Your task to perform on an android device: turn on bluetooth scan Image 0: 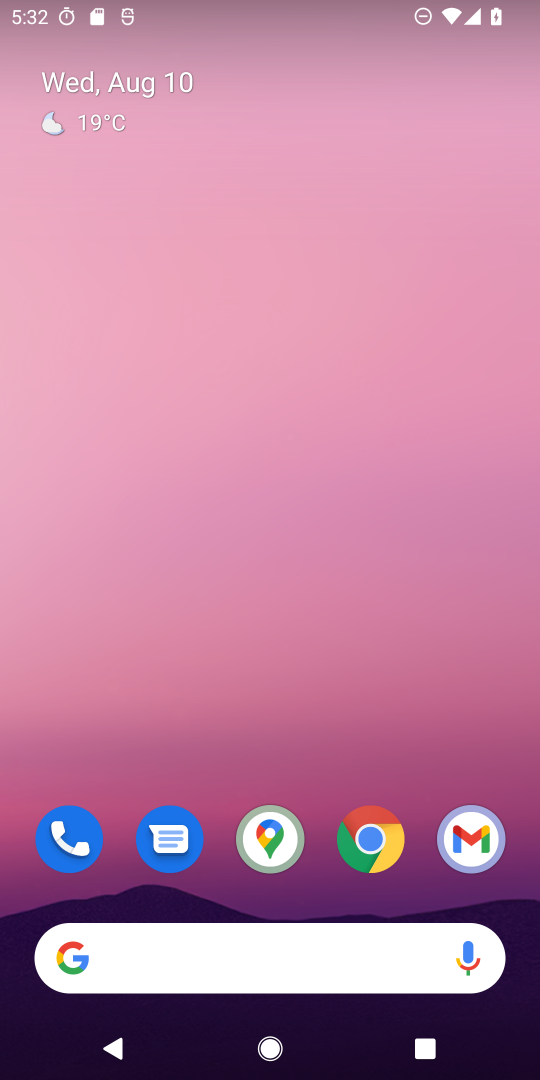
Step 0: drag from (57, 994) to (355, 292)
Your task to perform on an android device: turn on bluetooth scan Image 1: 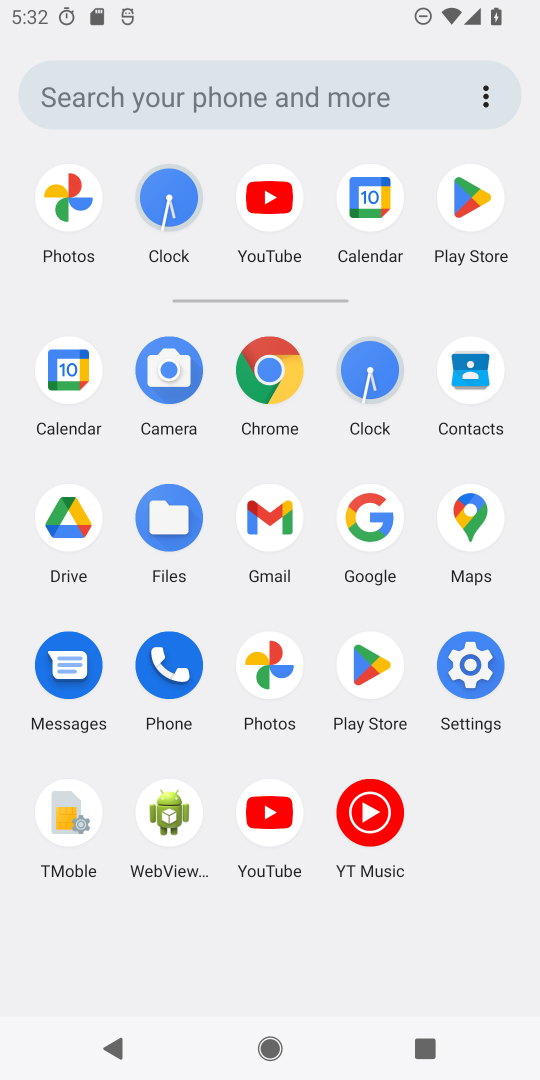
Step 1: click (463, 681)
Your task to perform on an android device: turn on bluetooth scan Image 2: 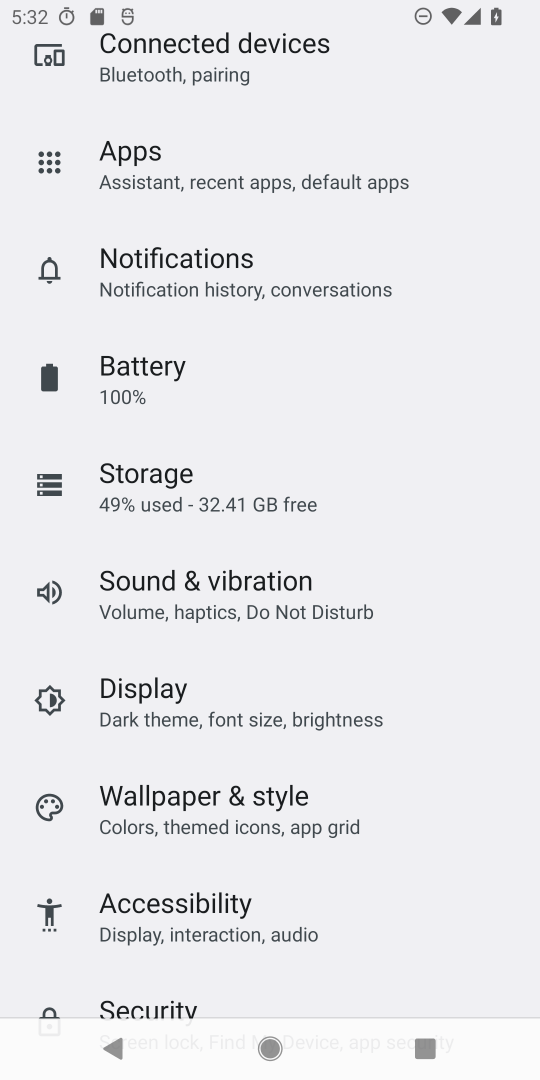
Step 2: drag from (469, 90) to (508, 843)
Your task to perform on an android device: turn on bluetooth scan Image 3: 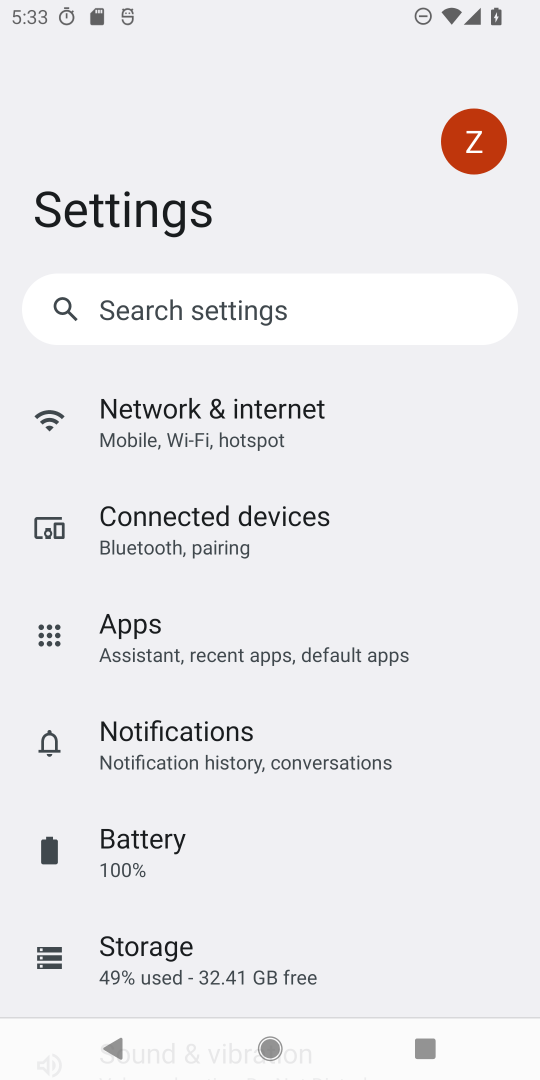
Step 3: click (160, 526)
Your task to perform on an android device: turn on bluetooth scan Image 4: 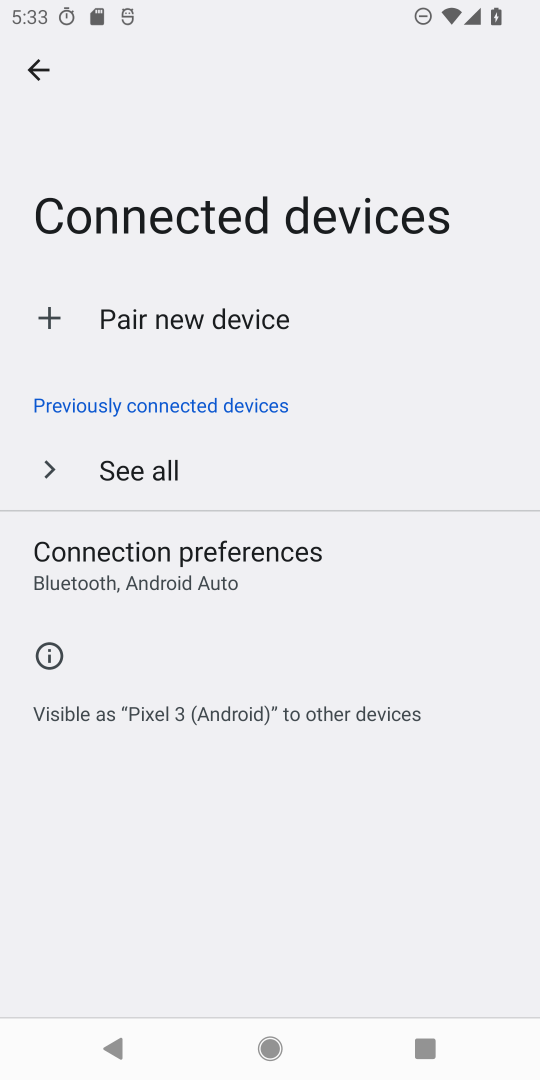
Step 4: click (152, 570)
Your task to perform on an android device: turn on bluetooth scan Image 5: 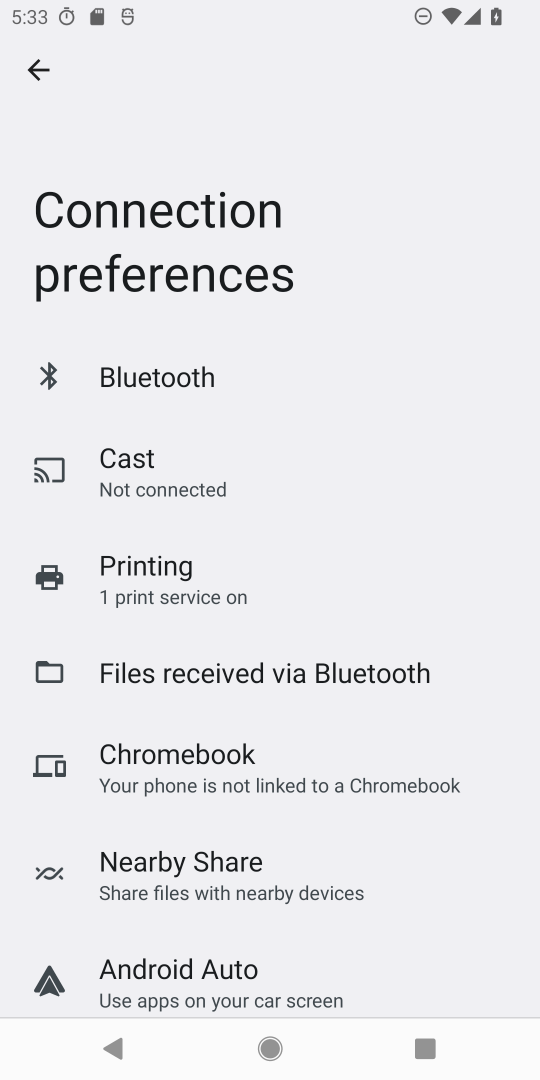
Step 5: click (175, 387)
Your task to perform on an android device: turn on bluetooth scan Image 6: 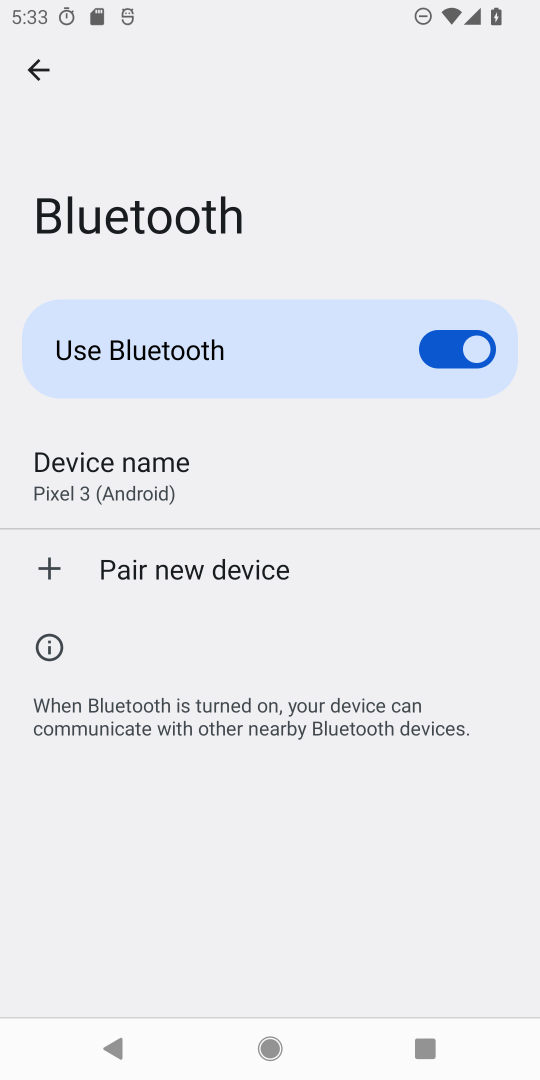
Step 6: task complete